Your task to perform on an android device: turn off priority inbox in the gmail app Image 0: 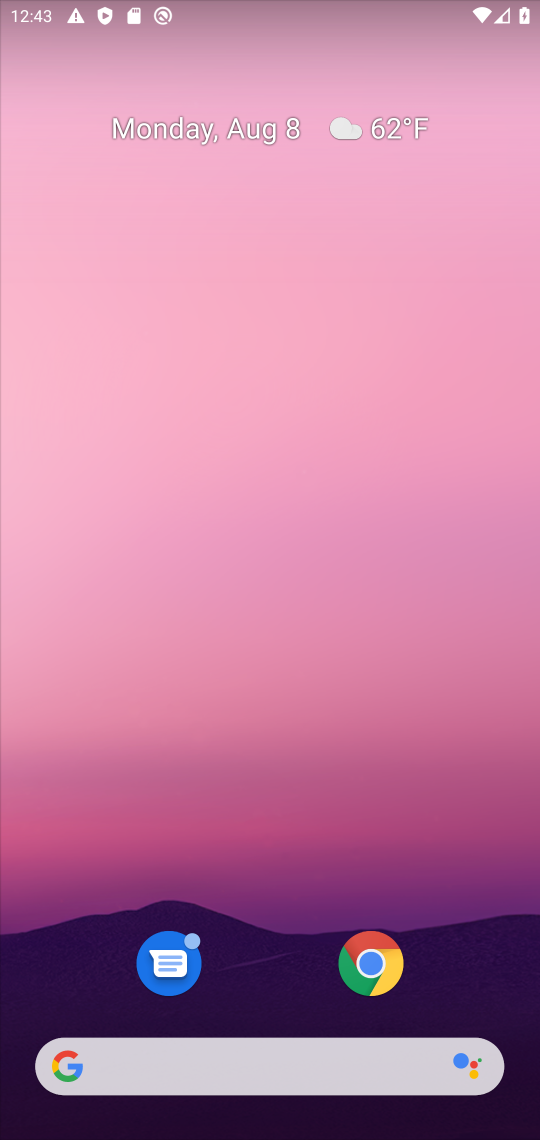
Step 0: drag from (486, 1009) to (339, 95)
Your task to perform on an android device: turn off priority inbox in the gmail app Image 1: 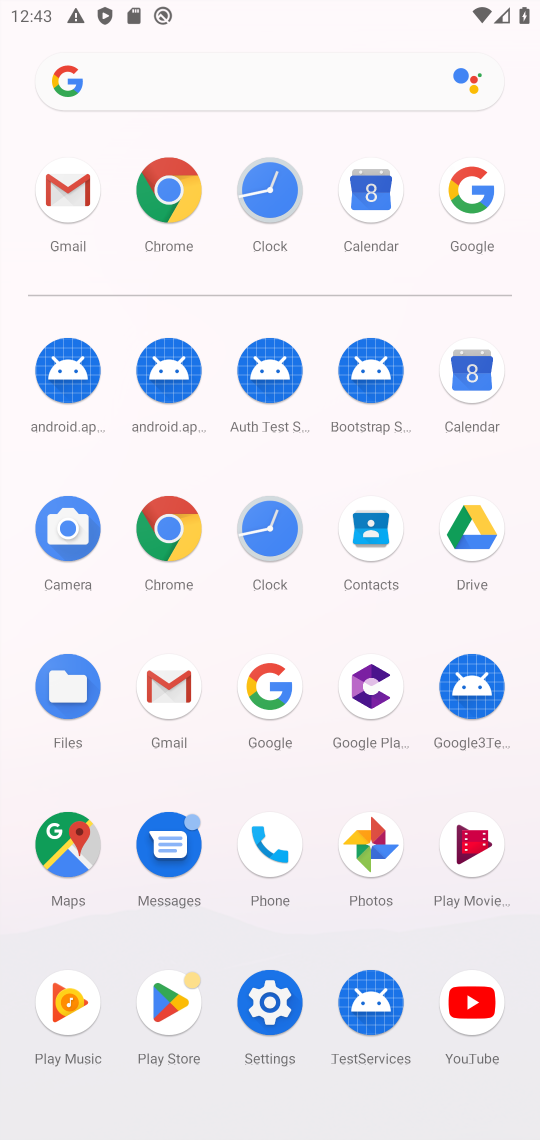
Step 1: click (157, 718)
Your task to perform on an android device: turn off priority inbox in the gmail app Image 2: 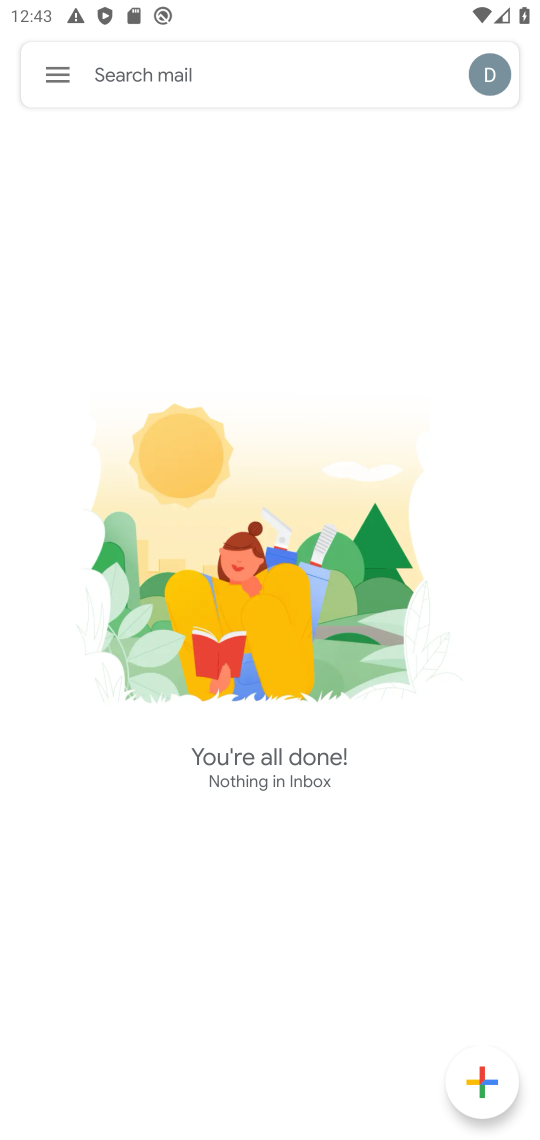
Step 2: click (39, 76)
Your task to perform on an android device: turn off priority inbox in the gmail app Image 3: 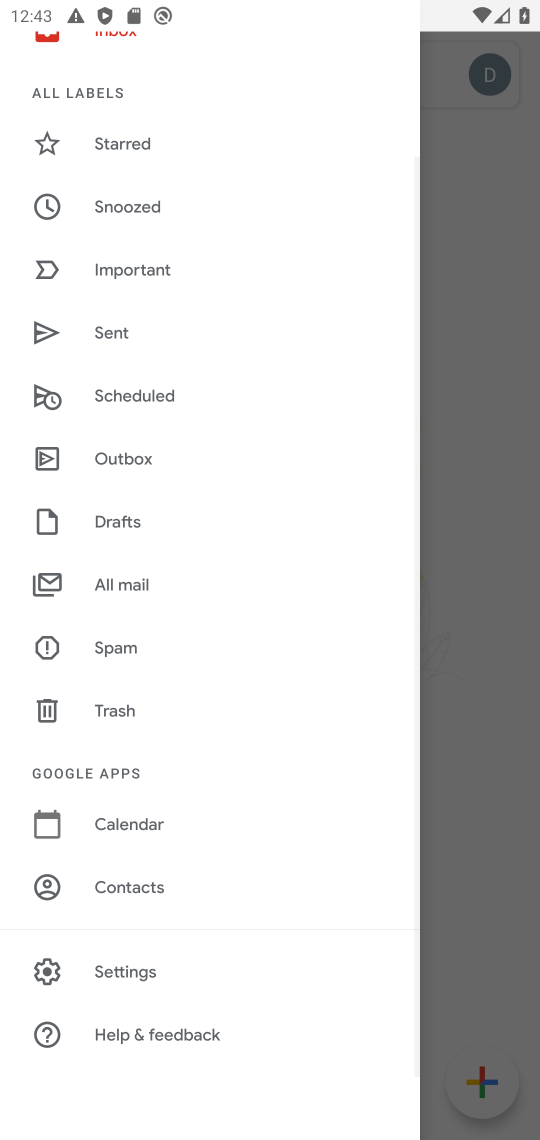
Step 3: click (119, 960)
Your task to perform on an android device: turn off priority inbox in the gmail app Image 4: 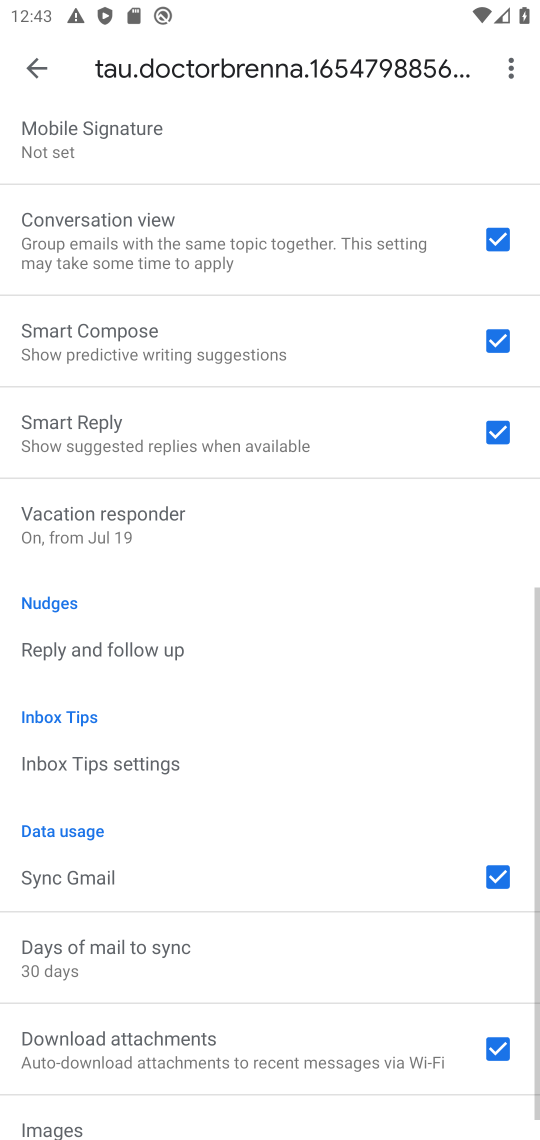
Step 4: drag from (74, 166) to (37, 1122)
Your task to perform on an android device: turn off priority inbox in the gmail app Image 5: 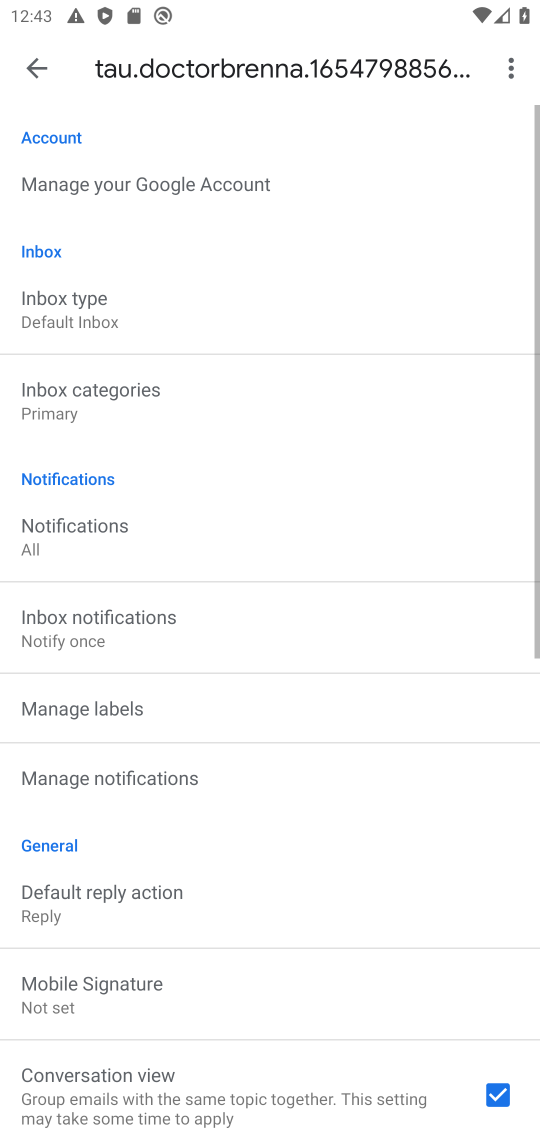
Step 5: click (83, 328)
Your task to perform on an android device: turn off priority inbox in the gmail app Image 6: 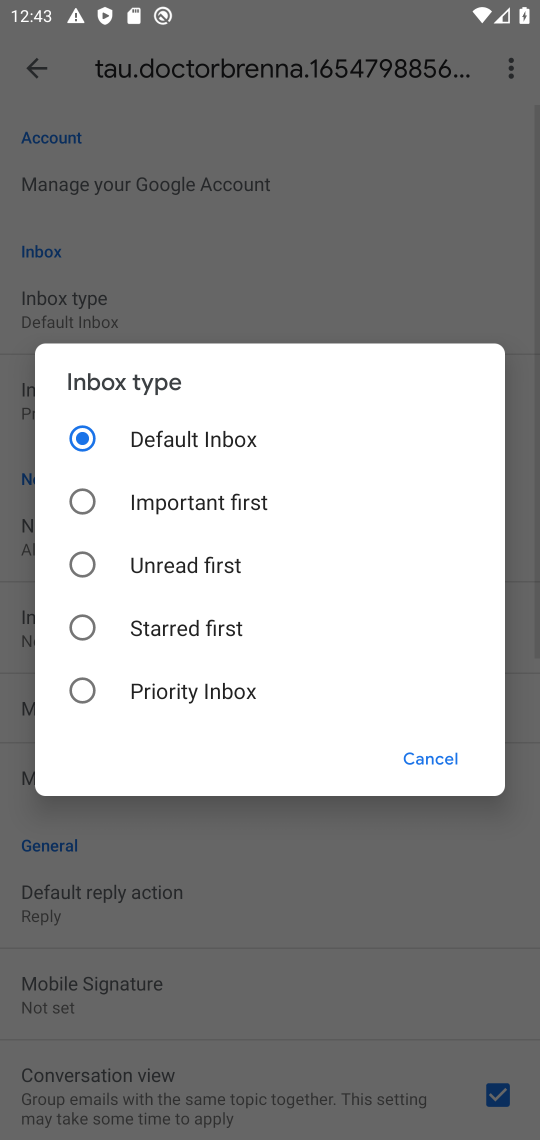
Step 6: click (157, 439)
Your task to perform on an android device: turn off priority inbox in the gmail app Image 7: 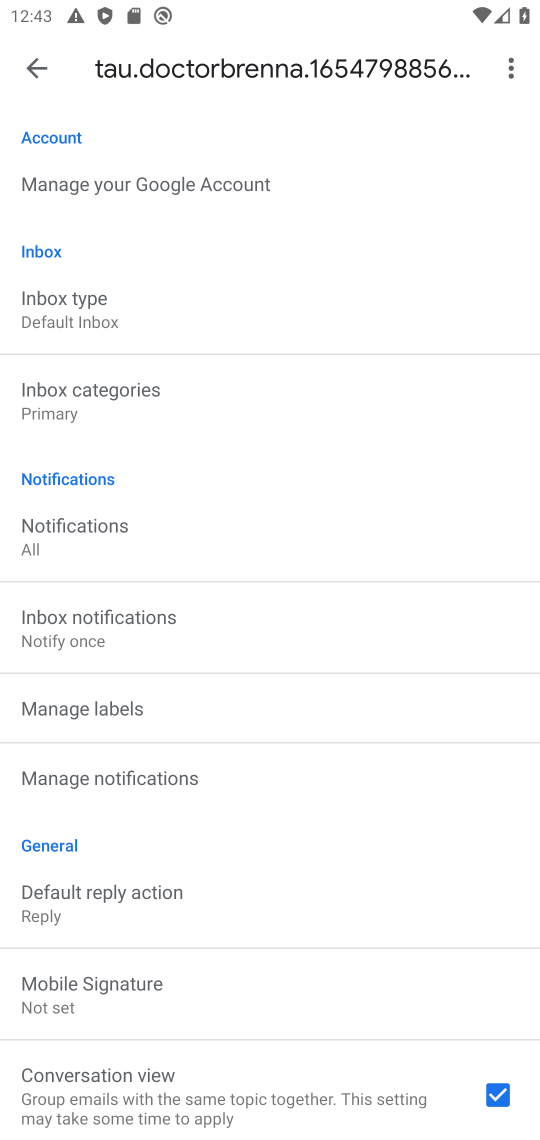
Step 7: task complete